Your task to perform on an android device: Go to Google Image 0: 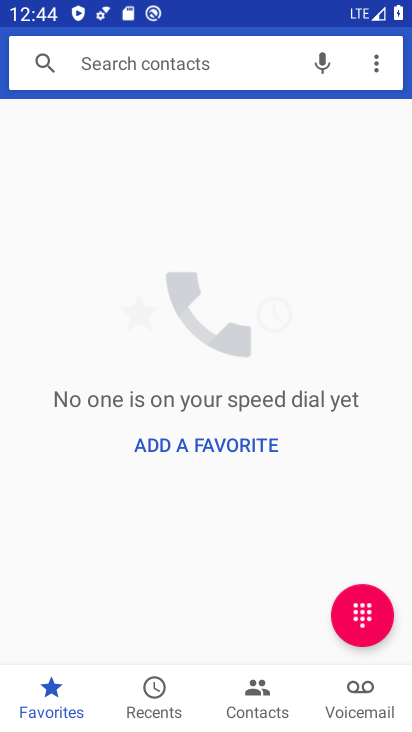
Step 0: press home button
Your task to perform on an android device: Go to Google Image 1: 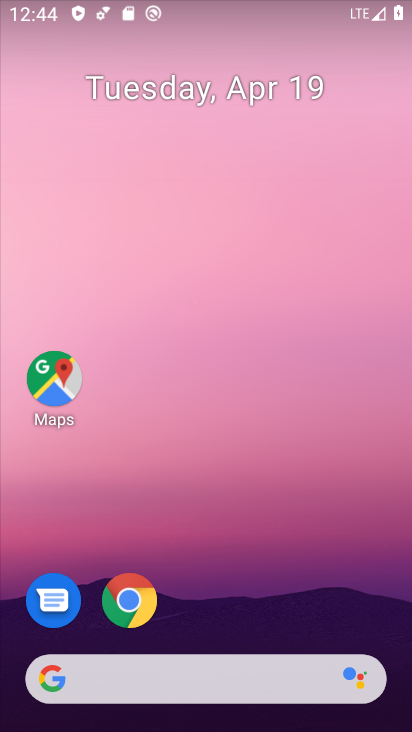
Step 1: drag from (219, 646) to (167, 24)
Your task to perform on an android device: Go to Google Image 2: 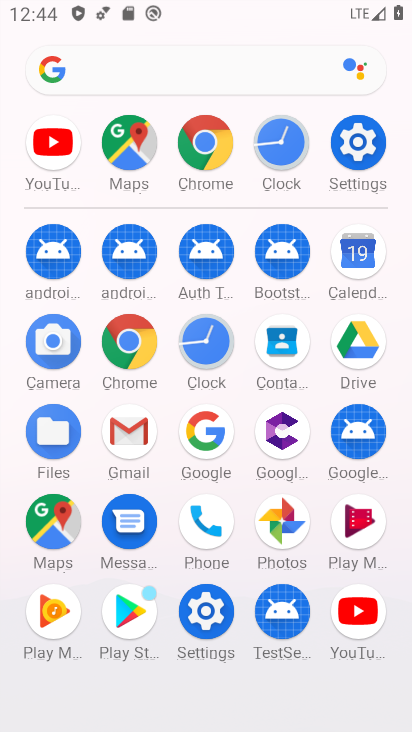
Step 2: click (212, 426)
Your task to perform on an android device: Go to Google Image 3: 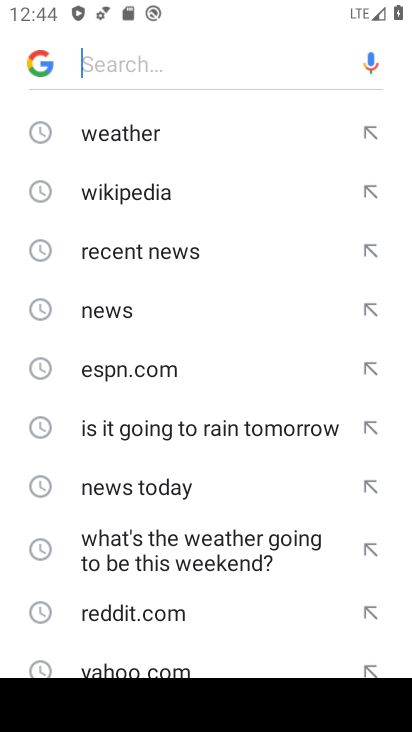
Step 3: task complete